Your task to perform on an android device: check out phone information Image 0: 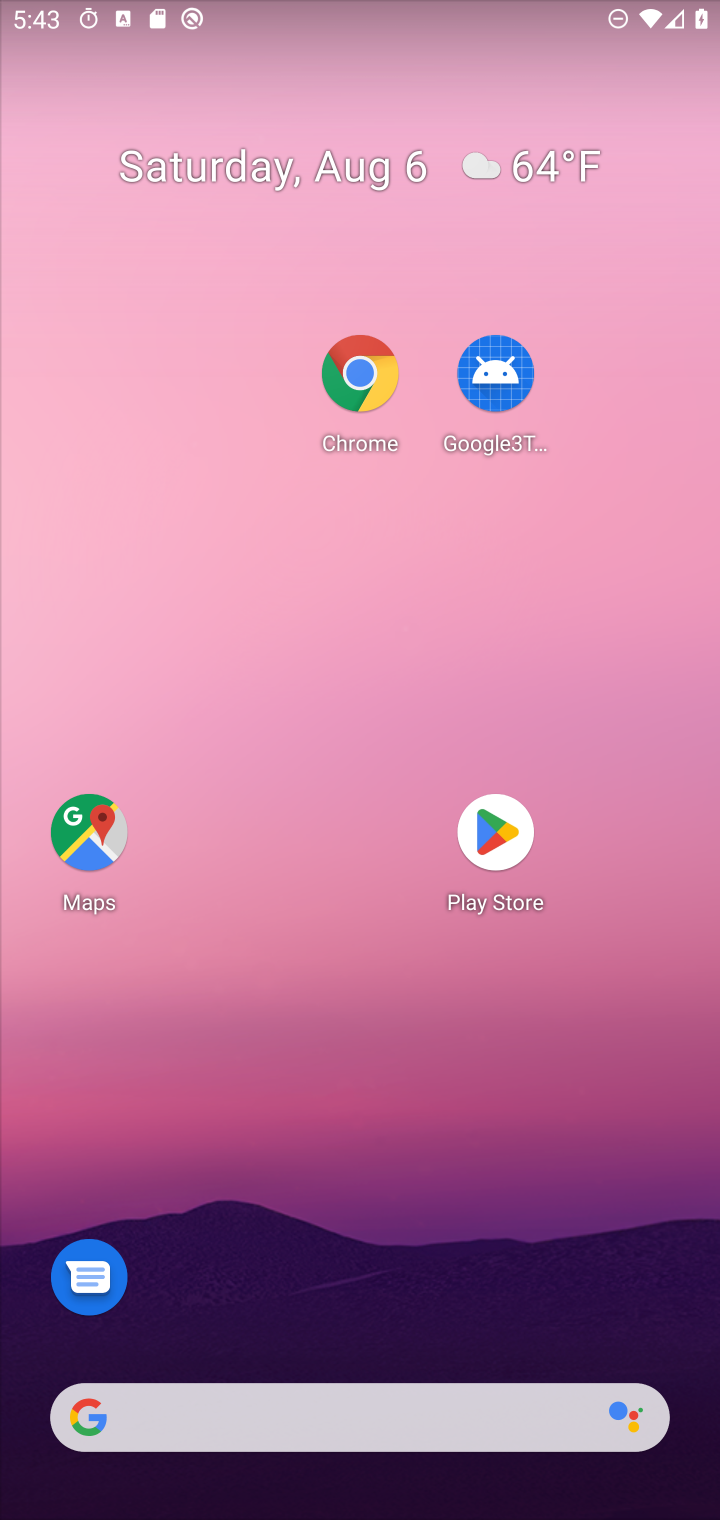
Step 0: drag from (271, 1435) to (11, 32)
Your task to perform on an android device: check out phone information Image 1: 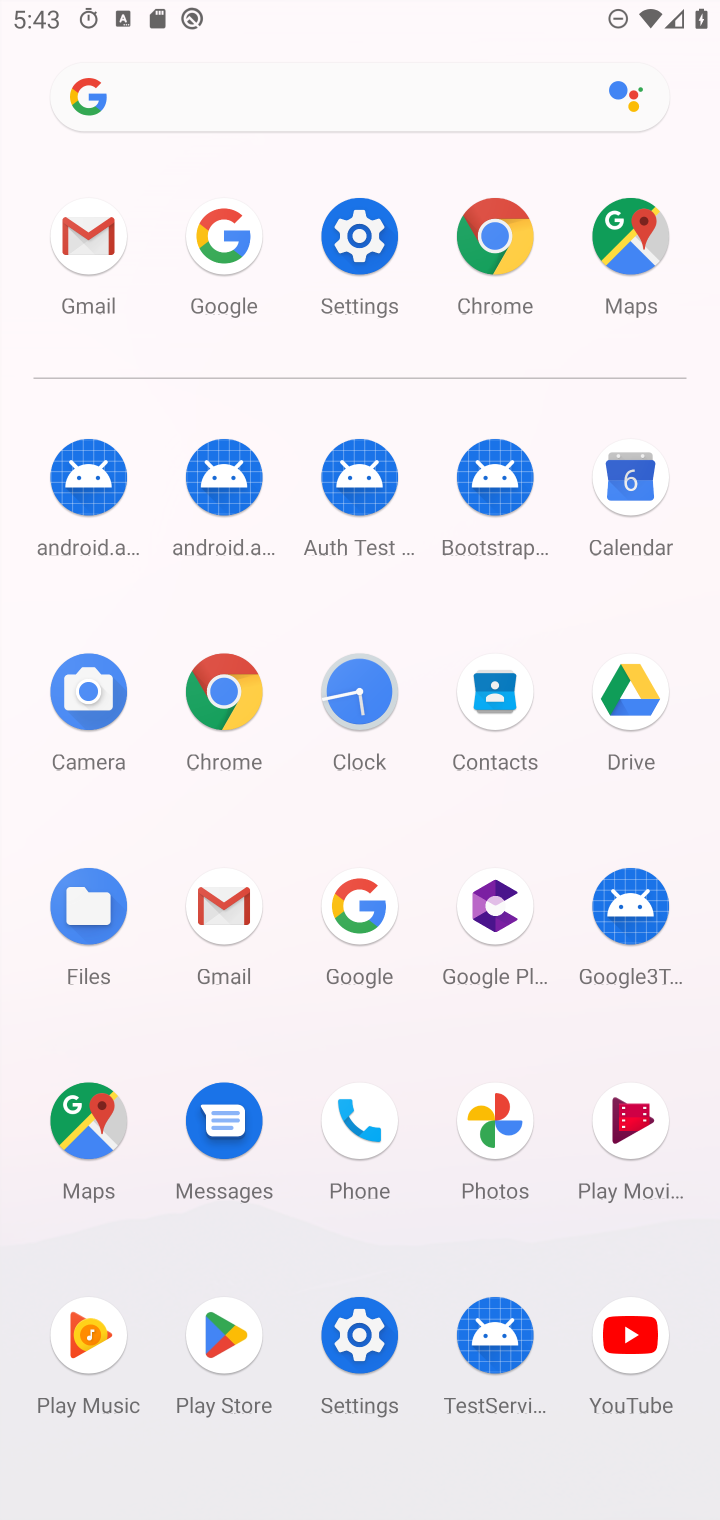
Step 1: click (357, 233)
Your task to perform on an android device: check out phone information Image 2: 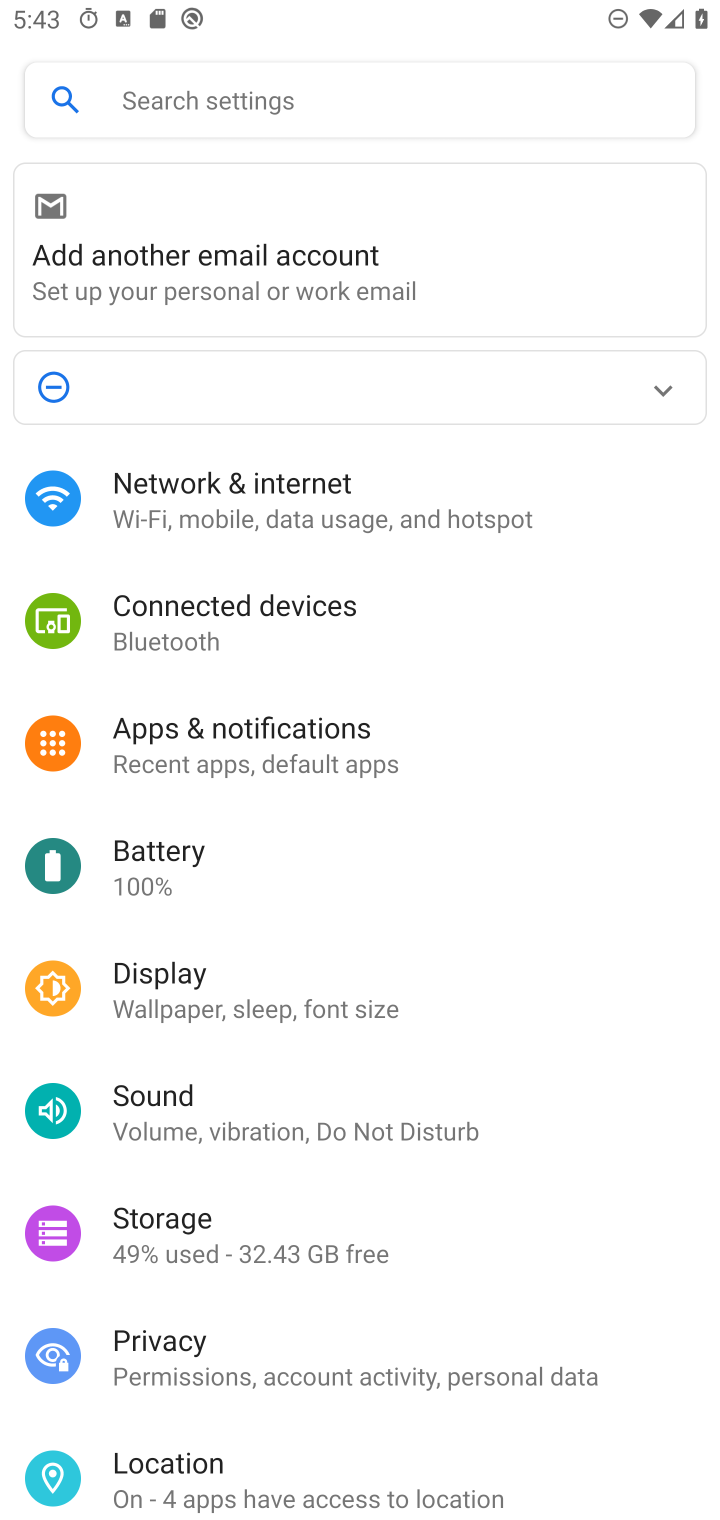
Step 2: drag from (658, 1451) to (611, 480)
Your task to perform on an android device: check out phone information Image 3: 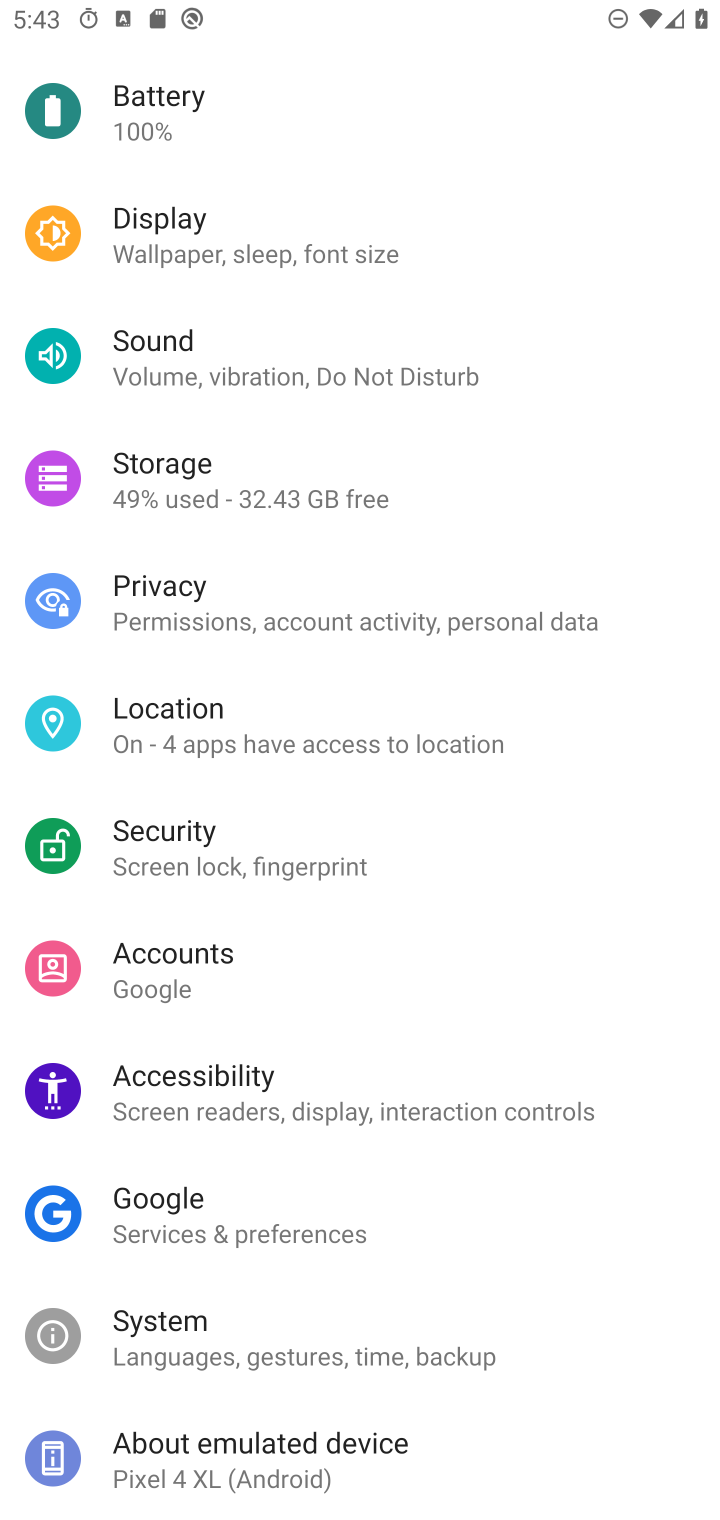
Step 3: click (326, 1434)
Your task to perform on an android device: check out phone information Image 4: 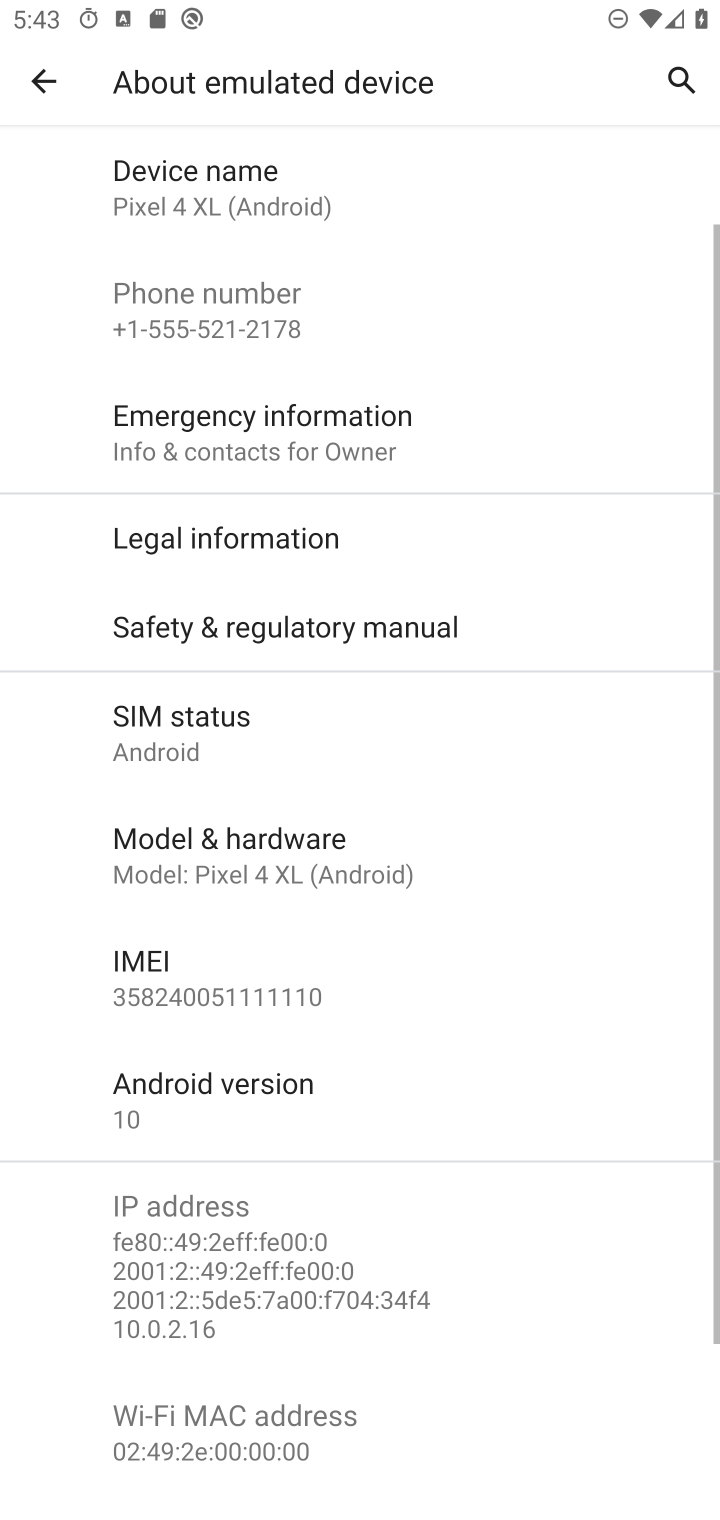
Step 4: task complete